Your task to perform on an android device: Open Amazon Image 0: 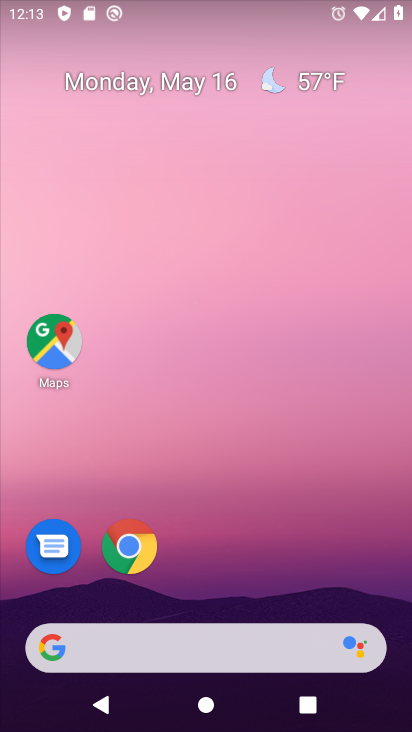
Step 0: click (115, 565)
Your task to perform on an android device: Open Amazon Image 1: 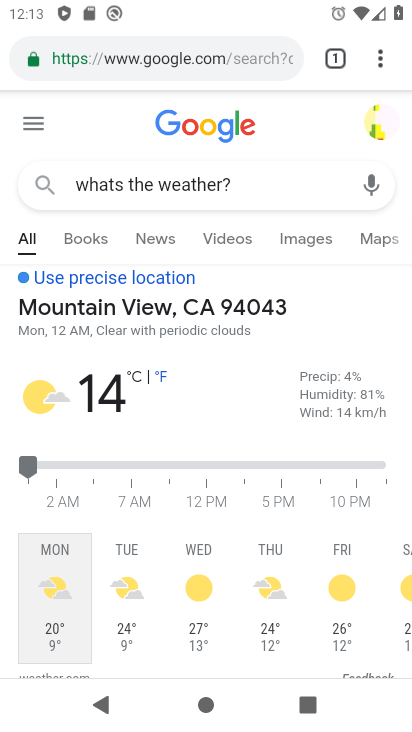
Step 1: click (203, 60)
Your task to perform on an android device: Open Amazon Image 2: 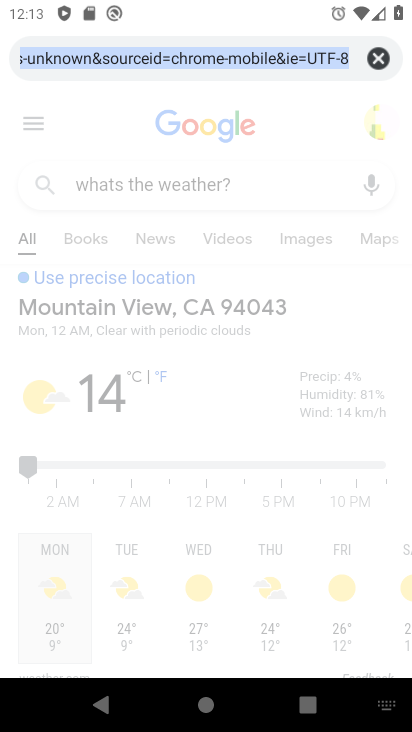
Step 2: type "Amazon"
Your task to perform on an android device: Open Amazon Image 3: 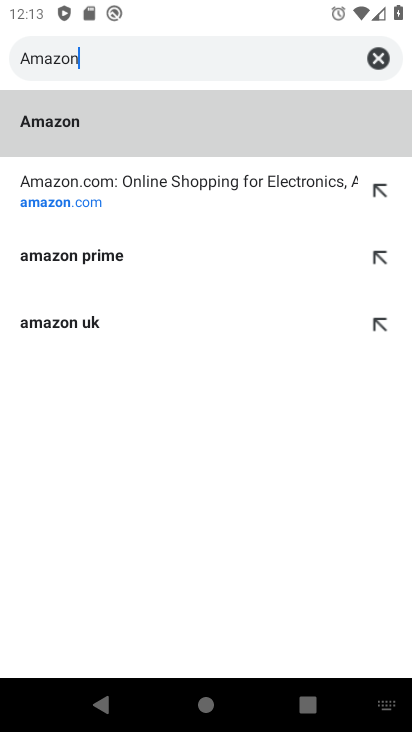
Step 3: click (50, 139)
Your task to perform on an android device: Open Amazon Image 4: 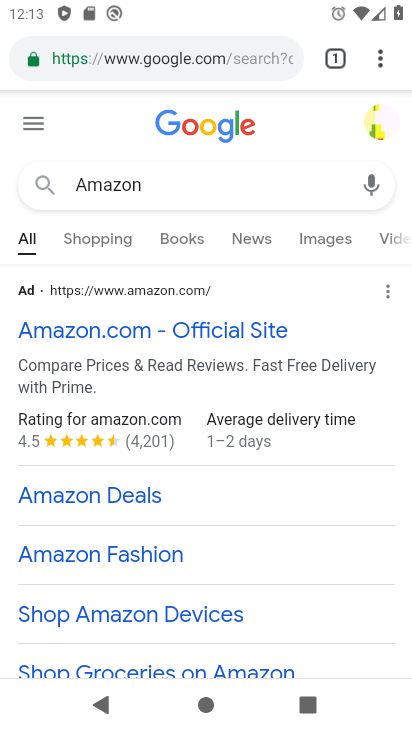
Step 4: click (183, 342)
Your task to perform on an android device: Open Amazon Image 5: 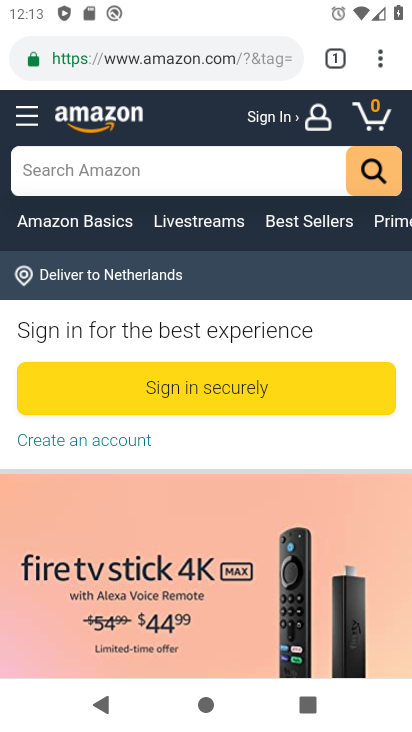
Step 5: task complete